Your task to perform on an android device: Open Wikipedia Image 0: 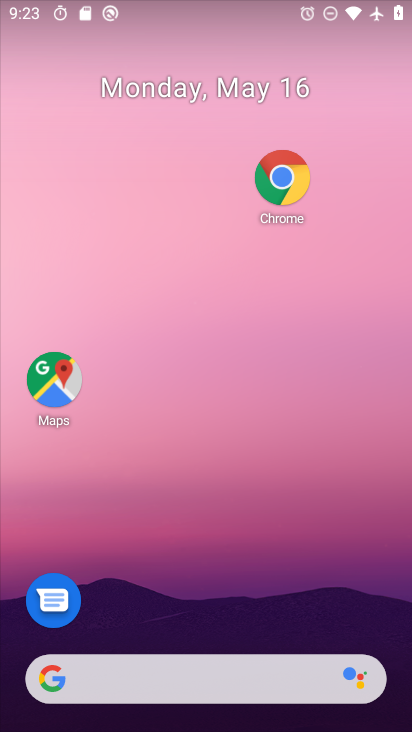
Step 0: click (288, 183)
Your task to perform on an android device: Open Wikipedia Image 1: 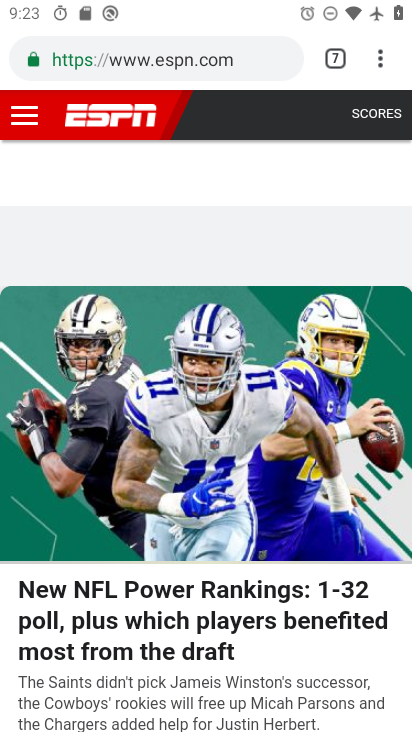
Step 1: drag from (381, 69) to (283, 112)
Your task to perform on an android device: Open Wikipedia Image 2: 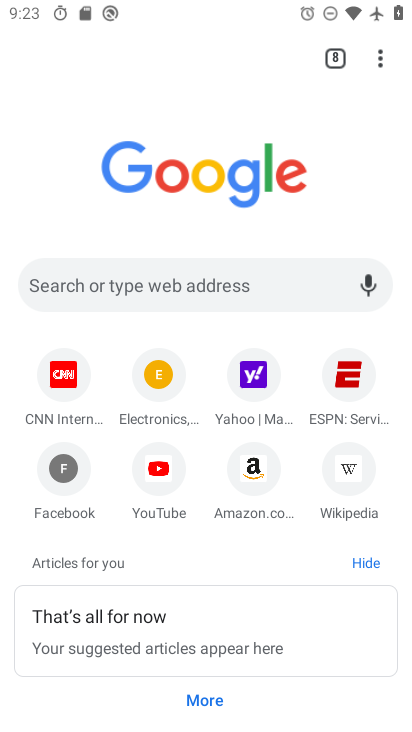
Step 2: click (344, 475)
Your task to perform on an android device: Open Wikipedia Image 3: 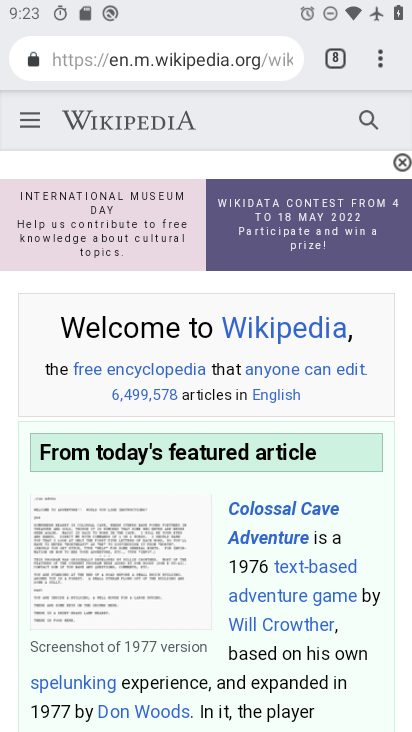
Step 3: task complete